Your task to perform on an android device: Toggle the flashlight Image 0: 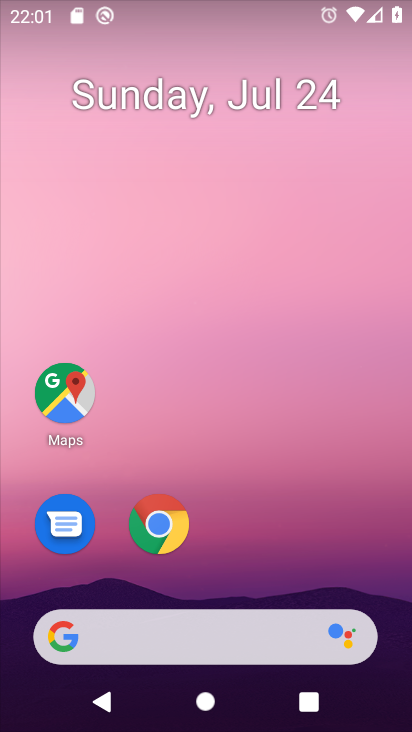
Step 0: drag from (321, 557) to (159, 1)
Your task to perform on an android device: Toggle the flashlight Image 1: 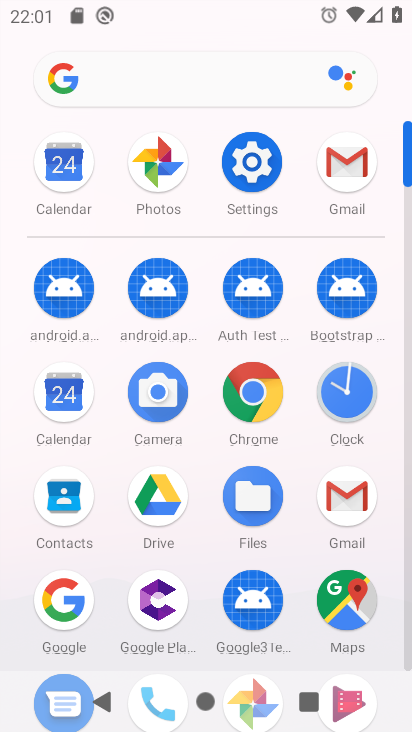
Step 1: click (250, 162)
Your task to perform on an android device: Toggle the flashlight Image 2: 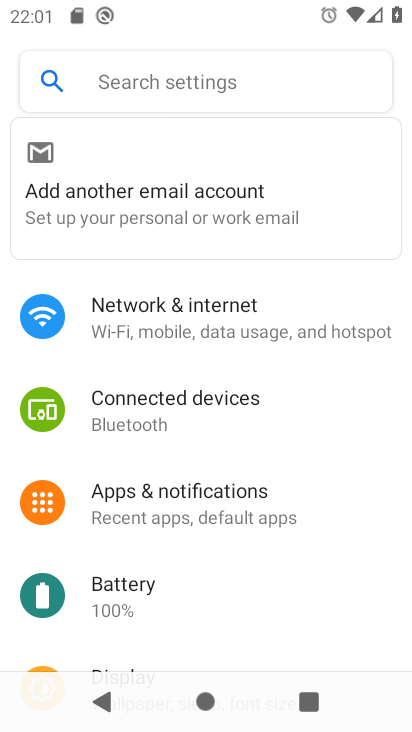
Step 2: click (249, 84)
Your task to perform on an android device: Toggle the flashlight Image 3: 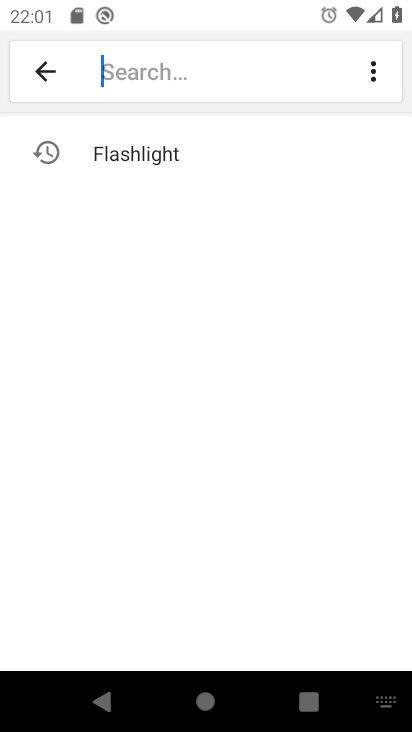
Step 3: click (144, 146)
Your task to perform on an android device: Toggle the flashlight Image 4: 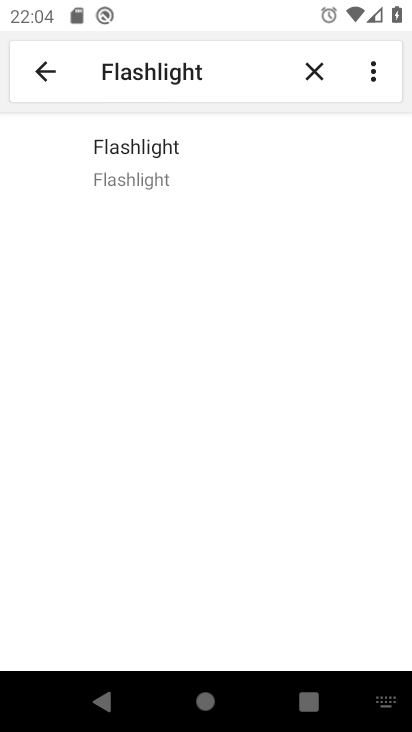
Step 4: task complete